Your task to perform on an android device: Do I have any events this weekend? Image 0: 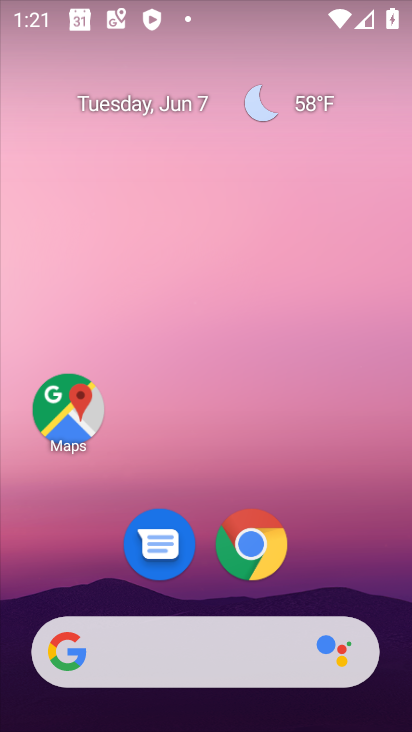
Step 0: drag from (194, 664) to (154, 277)
Your task to perform on an android device: Do I have any events this weekend? Image 1: 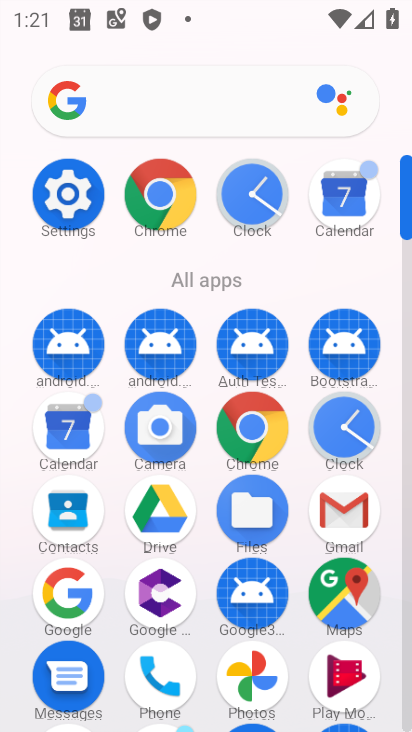
Step 1: click (65, 433)
Your task to perform on an android device: Do I have any events this weekend? Image 2: 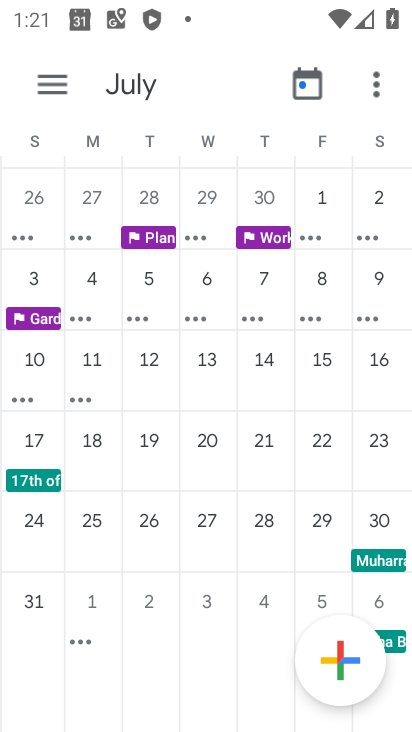
Step 2: task complete